Your task to perform on an android device: Is it going to rain today? Image 0: 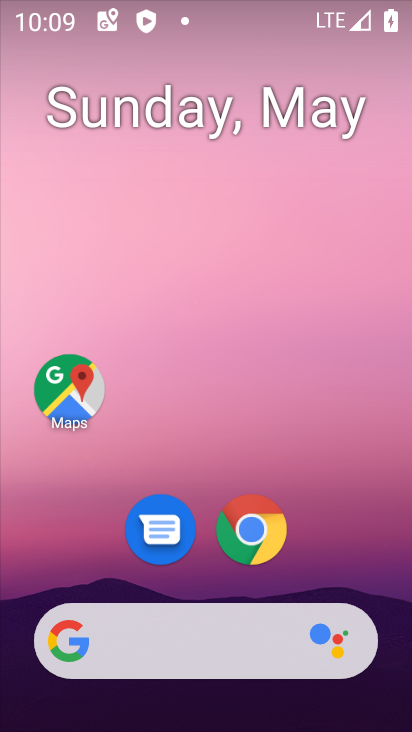
Step 0: click (200, 633)
Your task to perform on an android device: Is it going to rain today? Image 1: 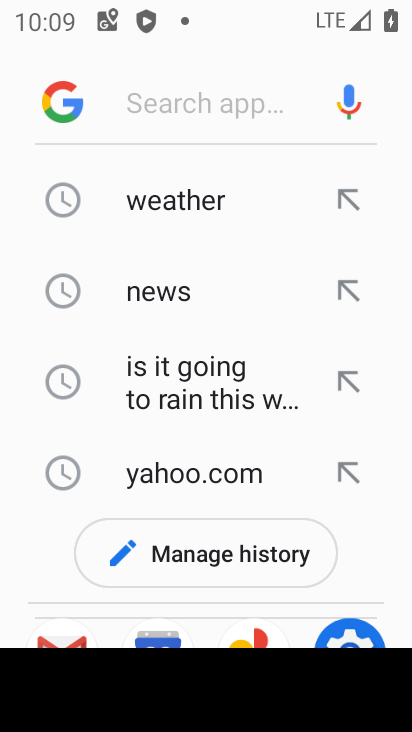
Step 1: click (142, 187)
Your task to perform on an android device: Is it going to rain today? Image 2: 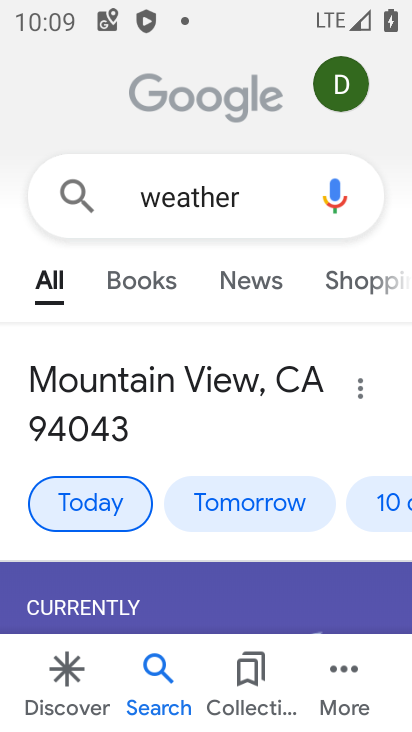
Step 2: task complete